Your task to perform on an android device: Add "jbl flip 4" to the cart on costco Image 0: 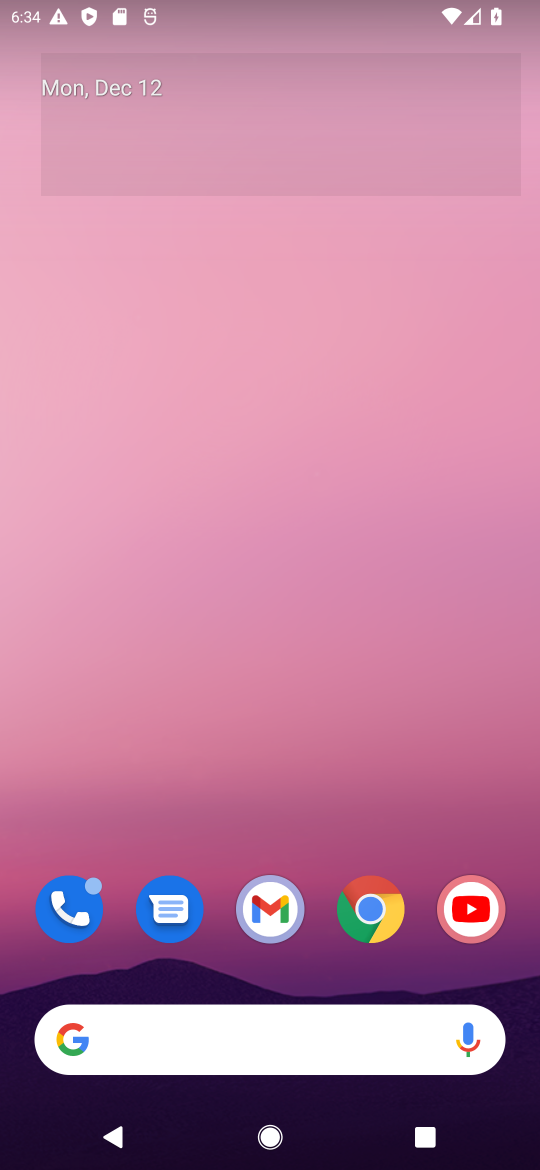
Step 0: click (368, 900)
Your task to perform on an android device: Add "jbl flip 4" to the cart on costco Image 1: 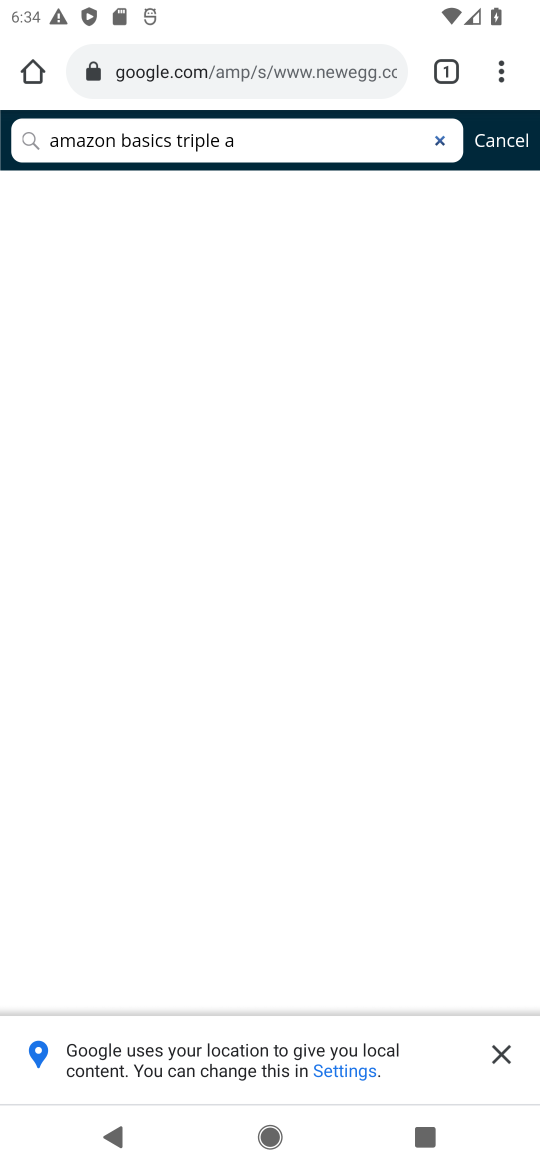
Step 1: click (277, 93)
Your task to perform on an android device: Add "jbl flip 4" to the cart on costco Image 2: 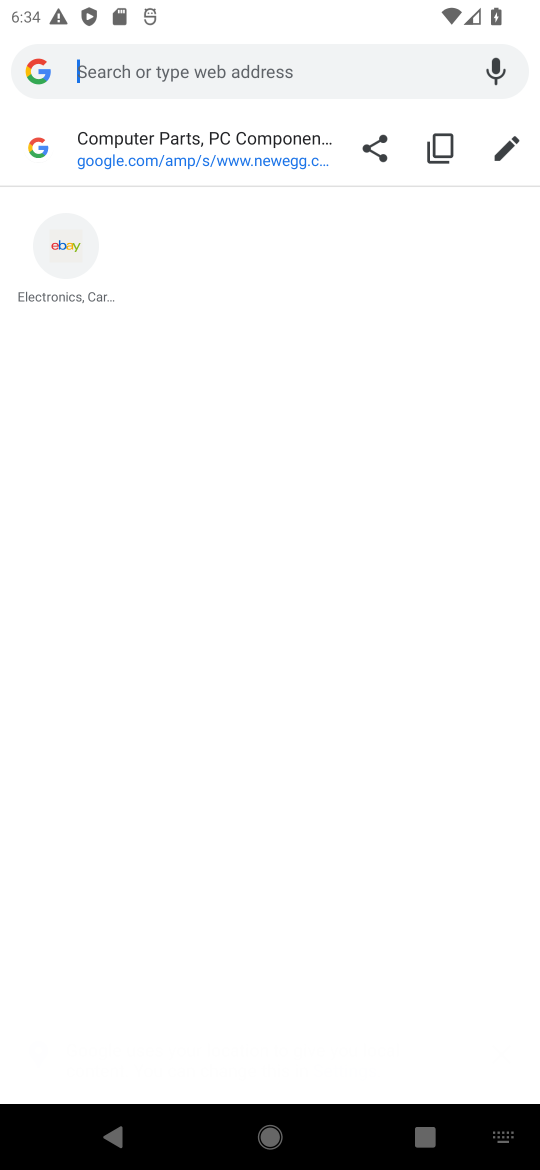
Step 2: type "costco"
Your task to perform on an android device: Add "jbl flip 4" to the cart on costco Image 3: 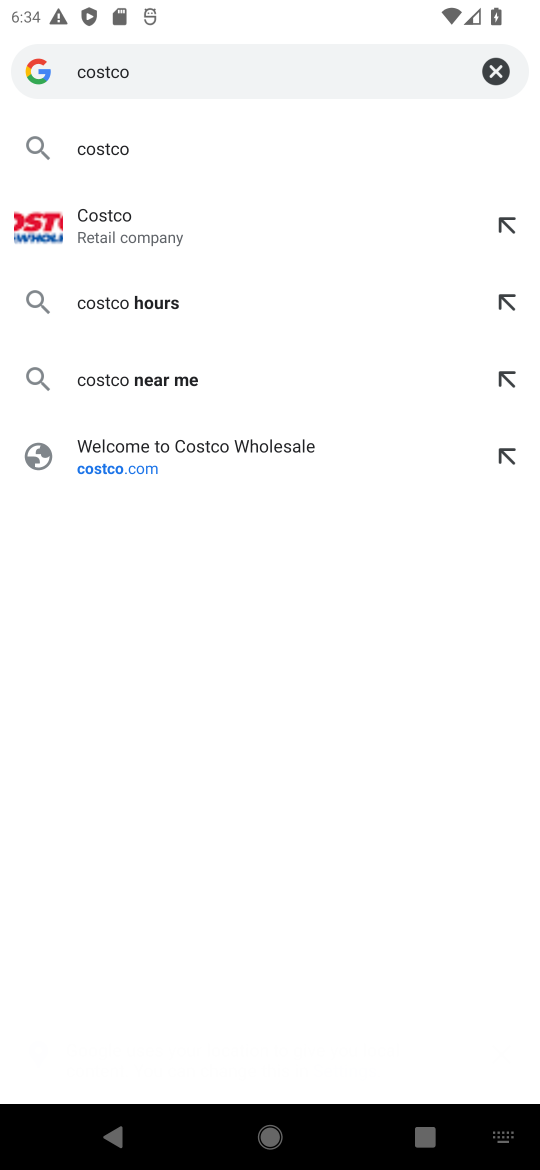
Step 3: click (97, 223)
Your task to perform on an android device: Add "jbl flip 4" to the cart on costco Image 4: 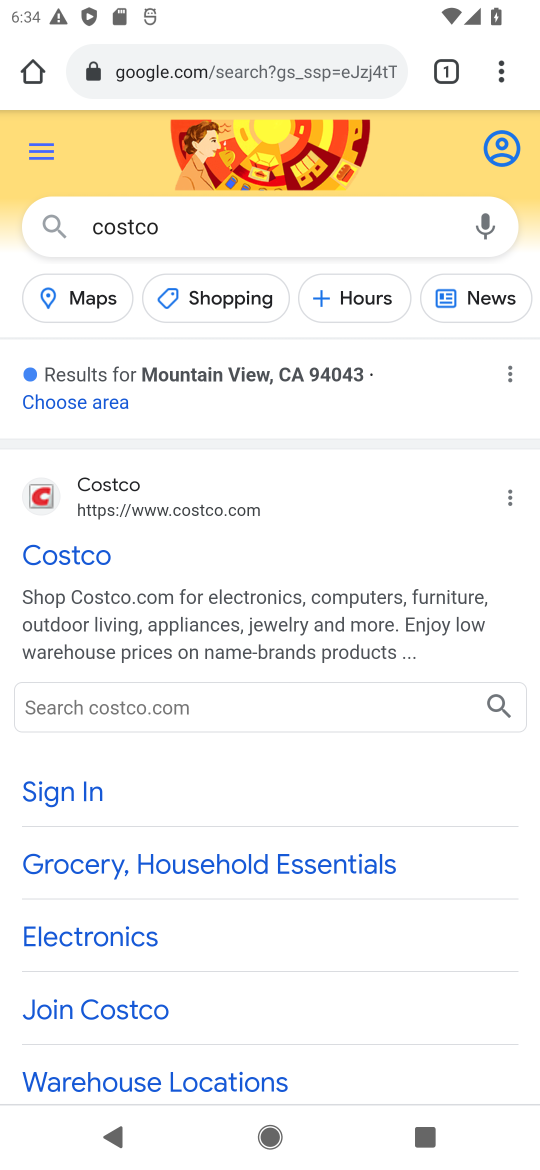
Step 4: click (64, 560)
Your task to perform on an android device: Add "jbl flip 4" to the cart on costco Image 5: 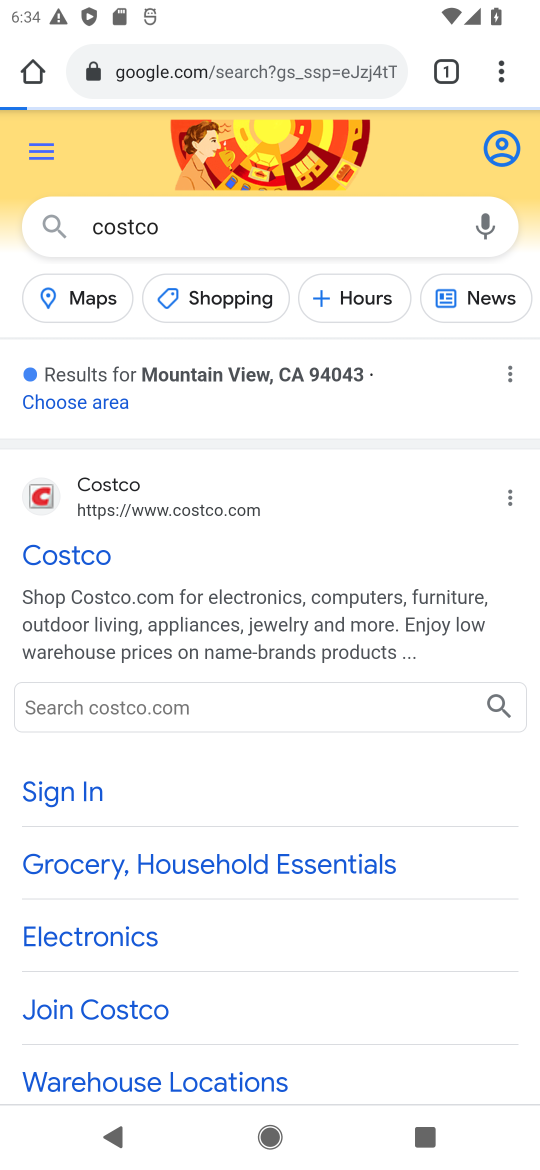
Step 5: click (64, 560)
Your task to perform on an android device: Add "jbl flip 4" to the cart on costco Image 6: 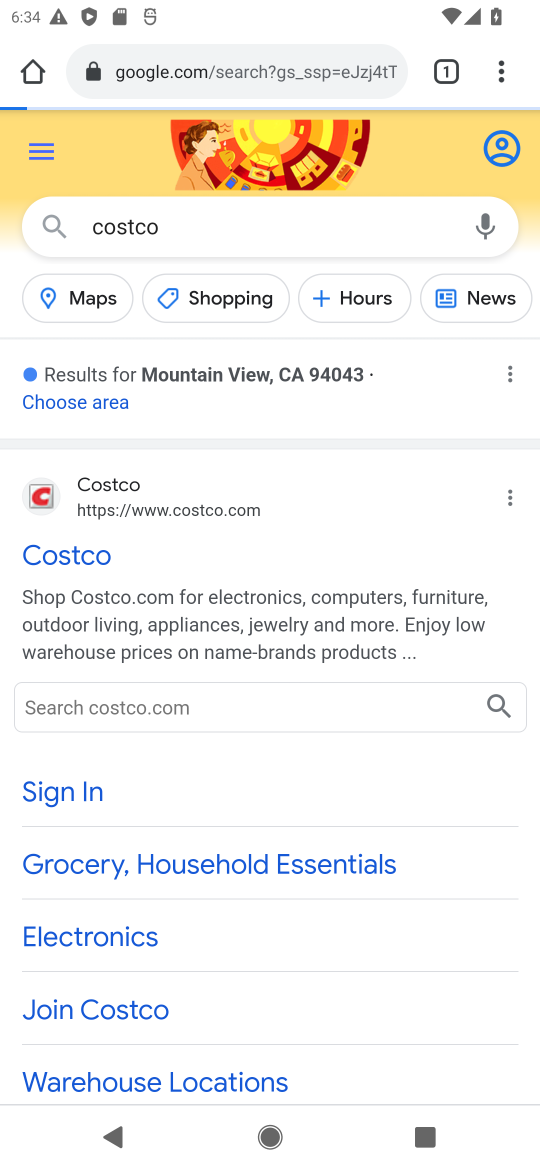
Step 6: click (64, 560)
Your task to perform on an android device: Add "jbl flip 4" to the cart on costco Image 7: 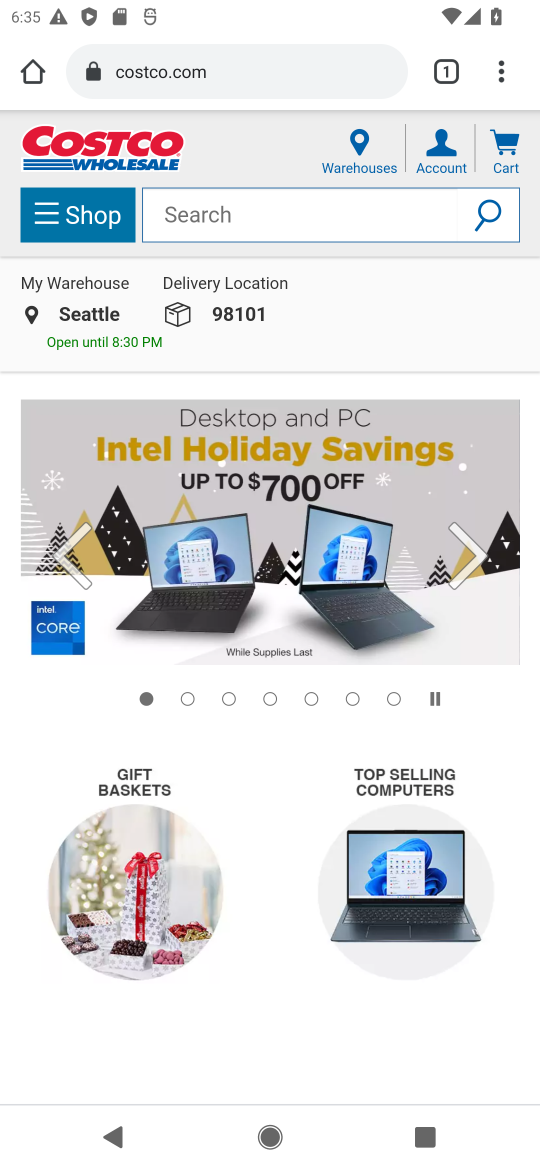
Step 7: click (294, 210)
Your task to perform on an android device: Add "jbl flip 4" to the cart on costco Image 8: 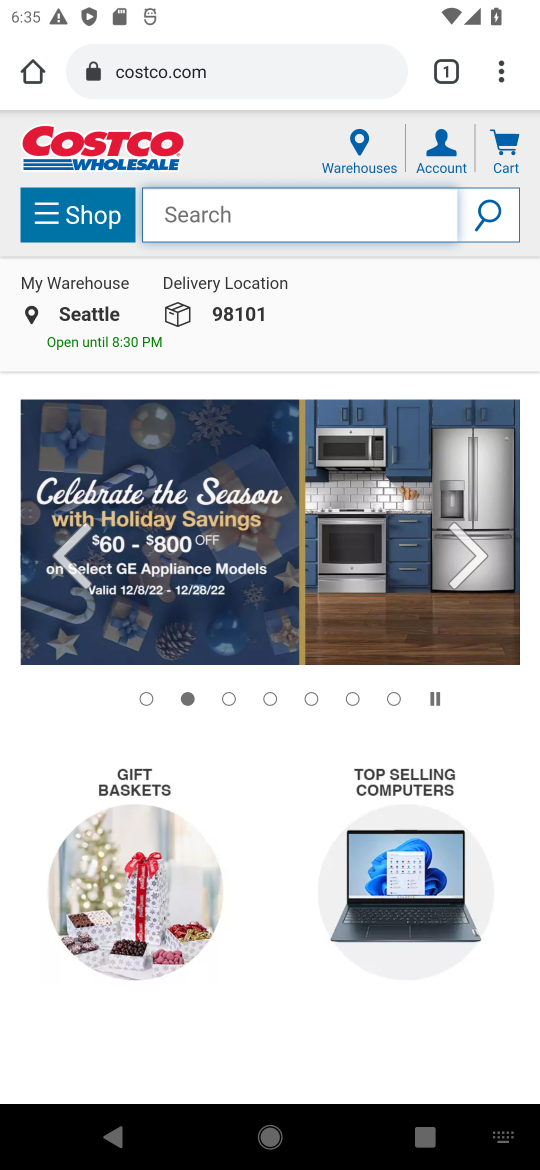
Step 8: type "jbl flip 4"
Your task to perform on an android device: Add "jbl flip 4" to the cart on costco Image 9: 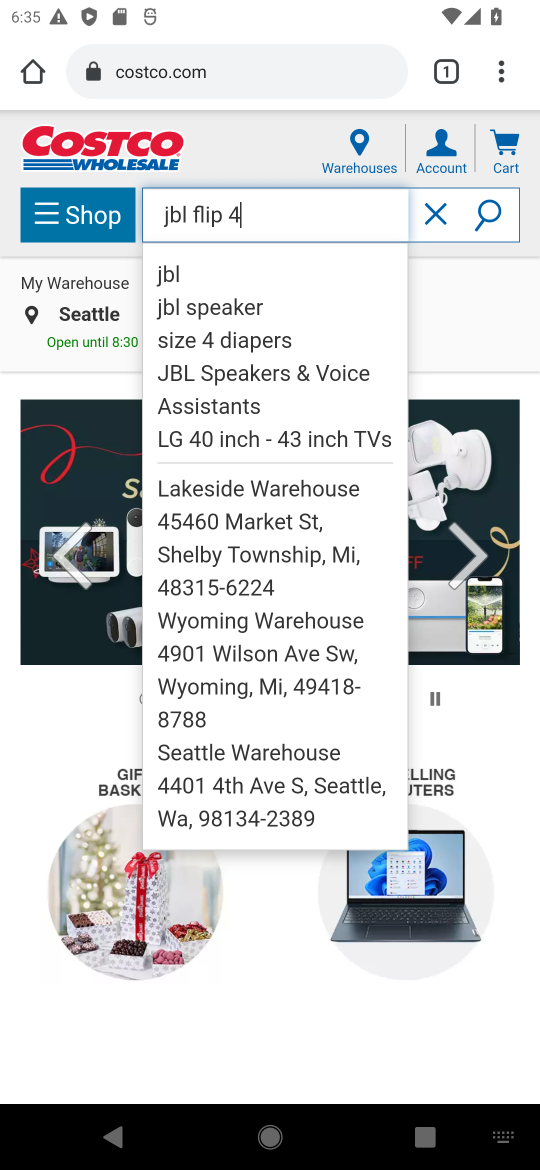
Step 9: click (489, 227)
Your task to perform on an android device: Add "jbl flip 4" to the cart on costco Image 10: 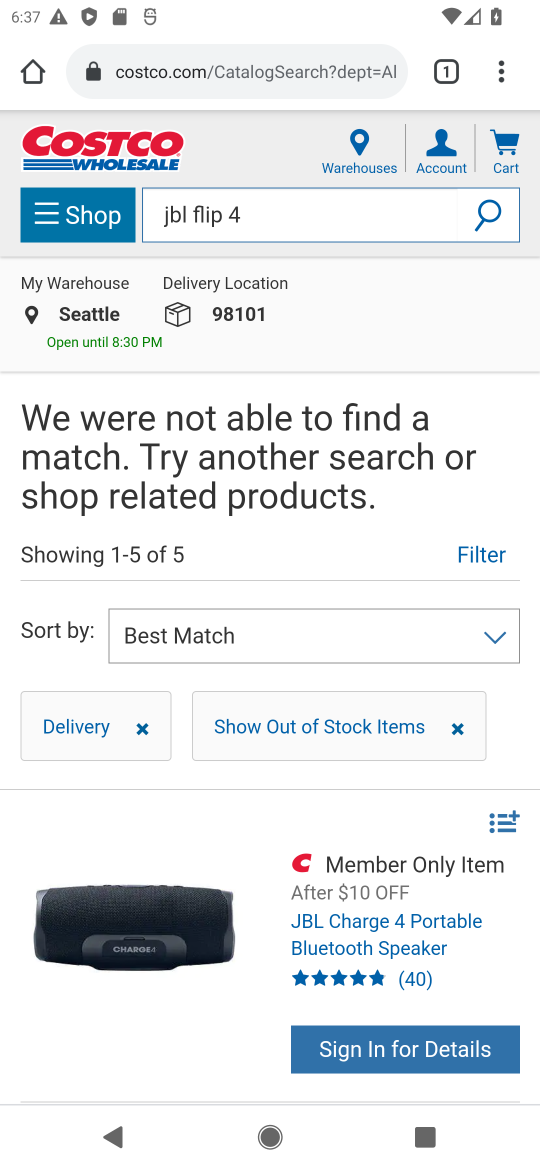
Step 10: task complete